Your task to perform on an android device: Open the calendar app, open the side menu, and click the "Day" option Image 0: 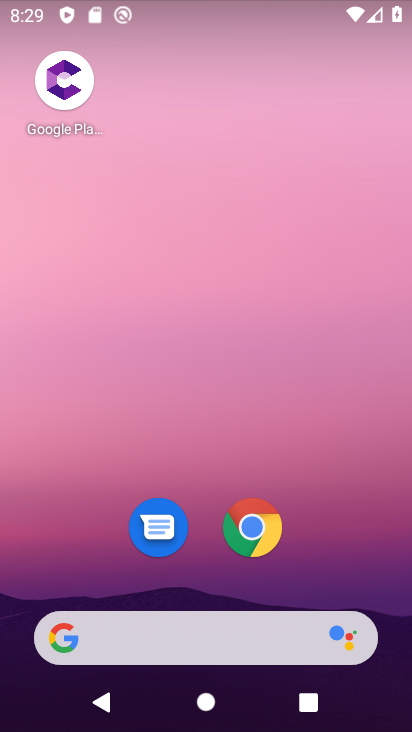
Step 0: drag from (375, 592) to (368, 19)
Your task to perform on an android device: Open the calendar app, open the side menu, and click the "Day" option Image 1: 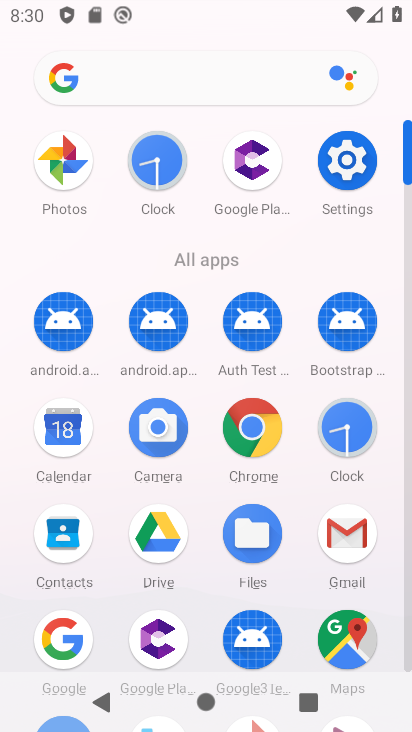
Step 1: click (57, 429)
Your task to perform on an android device: Open the calendar app, open the side menu, and click the "Day" option Image 2: 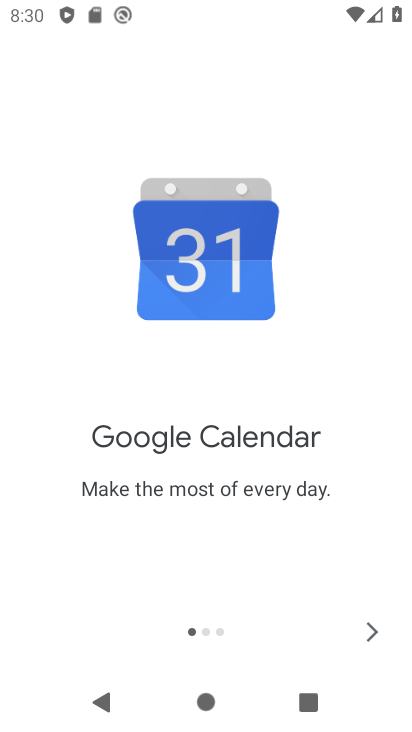
Step 2: click (376, 625)
Your task to perform on an android device: Open the calendar app, open the side menu, and click the "Day" option Image 3: 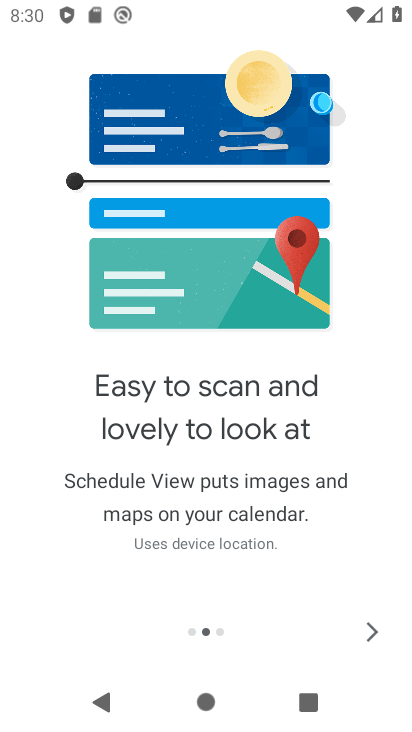
Step 3: click (374, 628)
Your task to perform on an android device: Open the calendar app, open the side menu, and click the "Day" option Image 4: 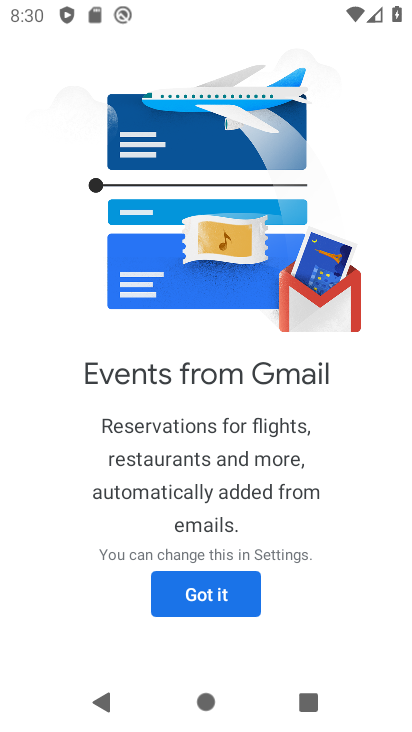
Step 4: click (211, 606)
Your task to perform on an android device: Open the calendar app, open the side menu, and click the "Day" option Image 5: 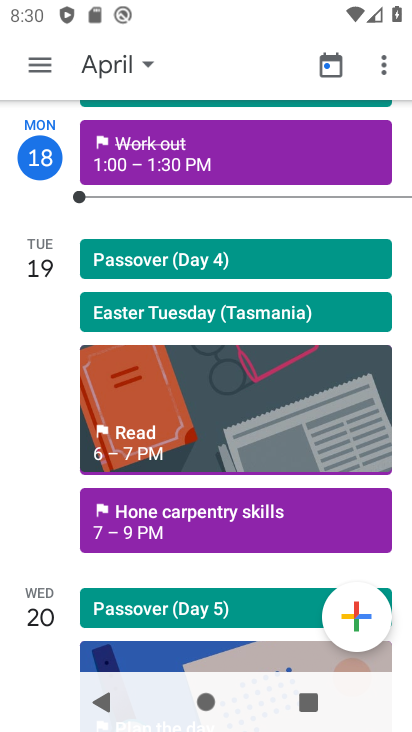
Step 5: click (40, 68)
Your task to perform on an android device: Open the calendar app, open the side menu, and click the "Day" option Image 6: 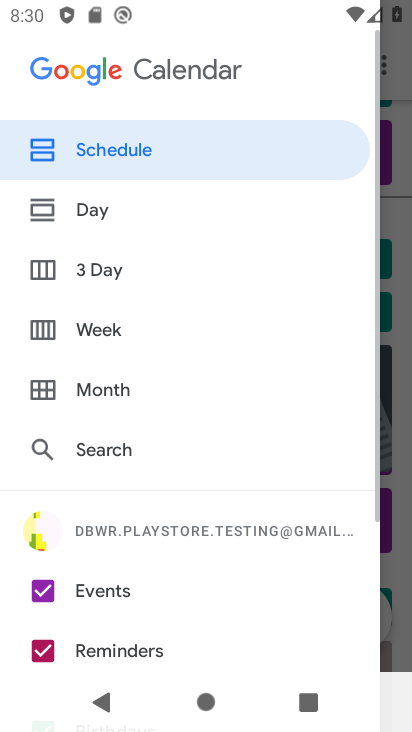
Step 6: click (66, 214)
Your task to perform on an android device: Open the calendar app, open the side menu, and click the "Day" option Image 7: 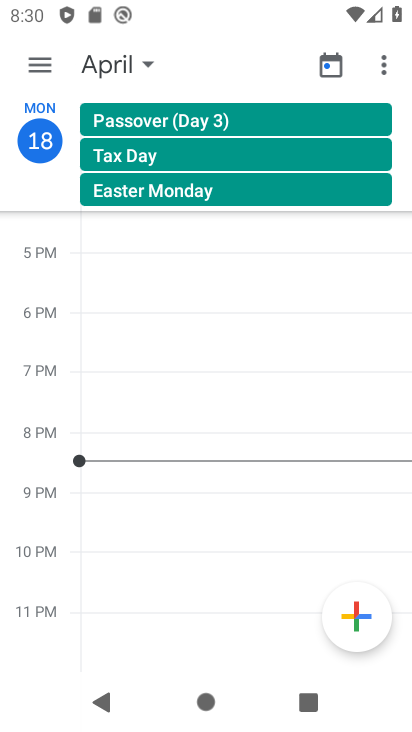
Step 7: task complete